Your task to perform on an android device: Open Yahoo.com Image 0: 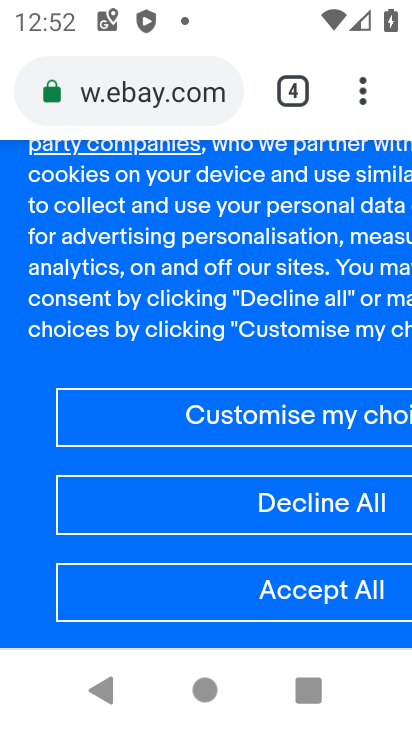
Step 0: click (114, 99)
Your task to perform on an android device: Open Yahoo.com Image 1: 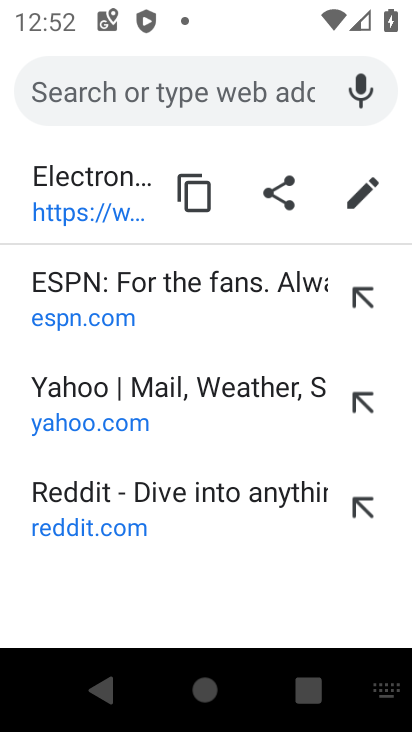
Step 1: click (156, 410)
Your task to perform on an android device: Open Yahoo.com Image 2: 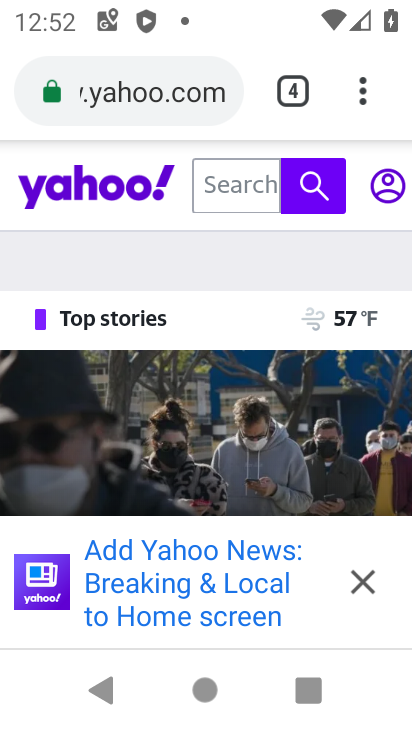
Step 2: task complete